Your task to perform on an android device: Open ESPN.com Image 0: 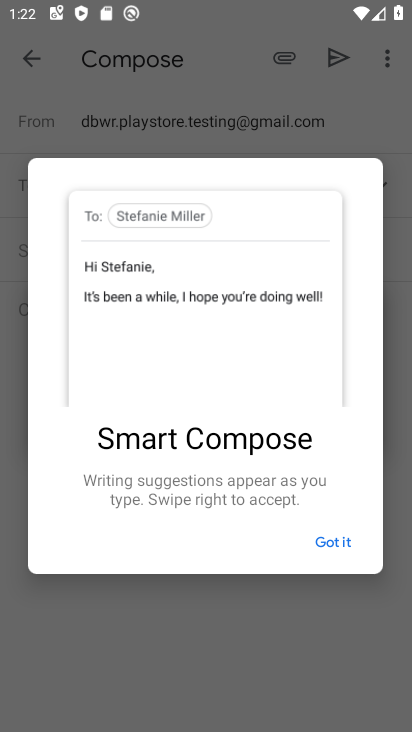
Step 0: press home button
Your task to perform on an android device: Open ESPN.com Image 1: 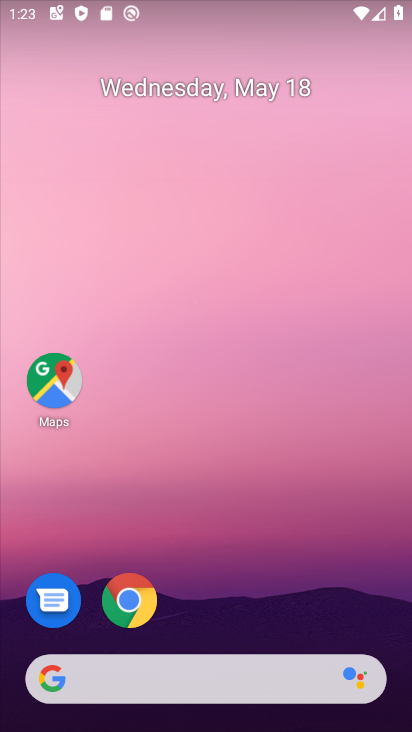
Step 1: click (130, 598)
Your task to perform on an android device: Open ESPN.com Image 2: 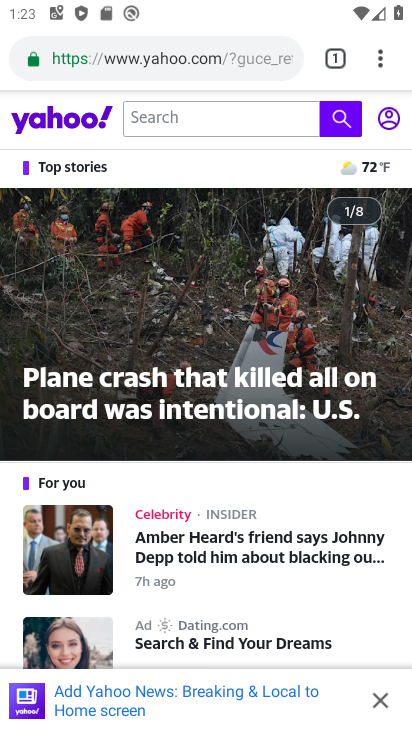
Step 2: click (228, 62)
Your task to perform on an android device: Open ESPN.com Image 3: 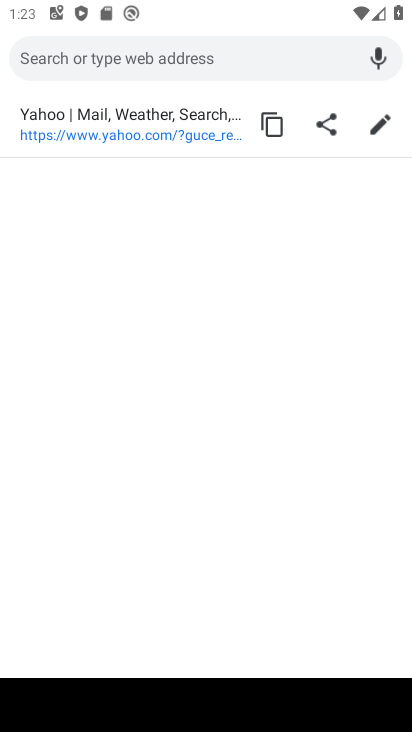
Step 3: type "ESPN.com"
Your task to perform on an android device: Open ESPN.com Image 4: 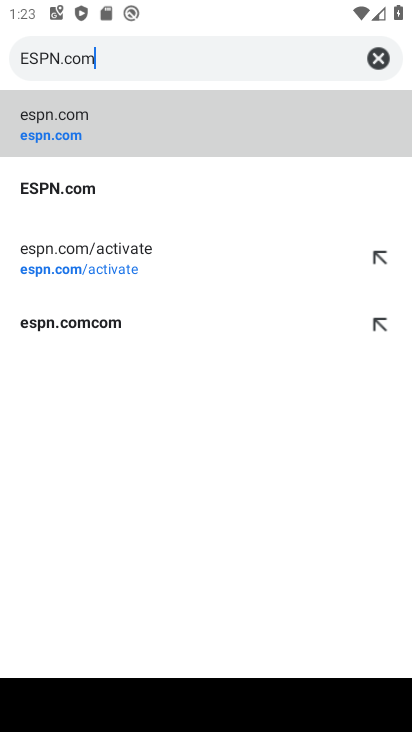
Step 4: type ""
Your task to perform on an android device: Open ESPN.com Image 5: 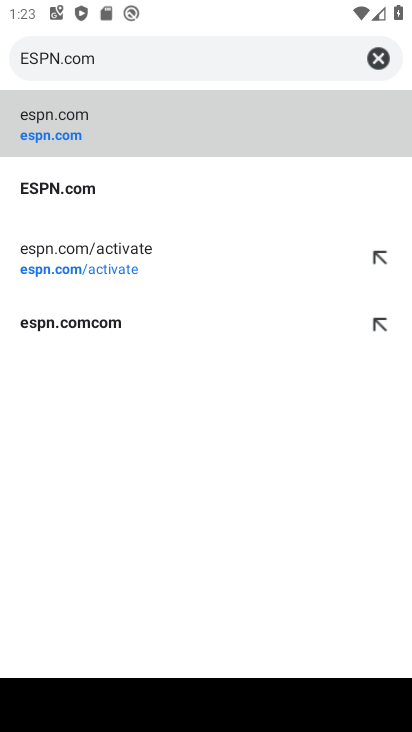
Step 5: click (83, 191)
Your task to perform on an android device: Open ESPN.com Image 6: 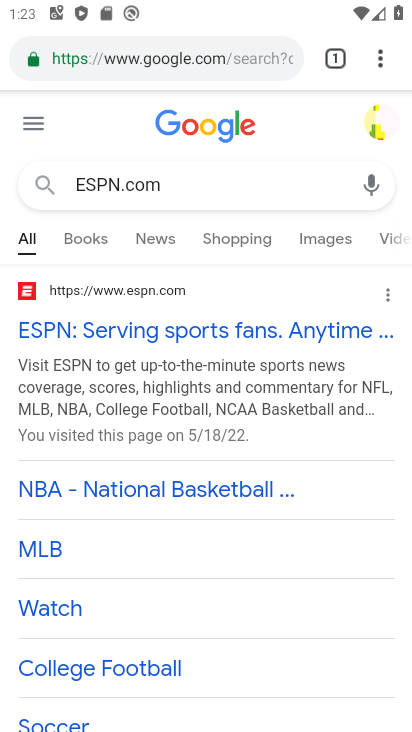
Step 6: click (141, 334)
Your task to perform on an android device: Open ESPN.com Image 7: 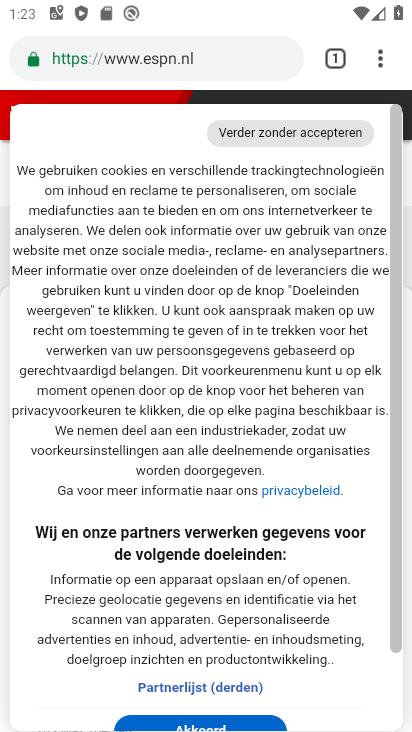
Step 7: task complete